Your task to perform on an android device: Open privacy settings Image 0: 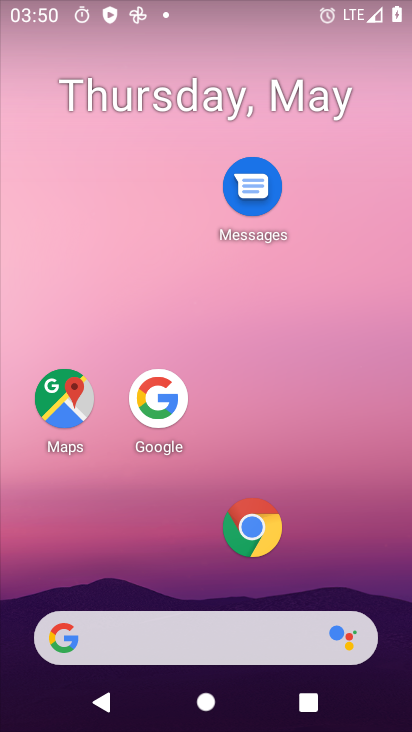
Step 0: drag from (207, 579) to (182, 167)
Your task to perform on an android device: Open privacy settings Image 1: 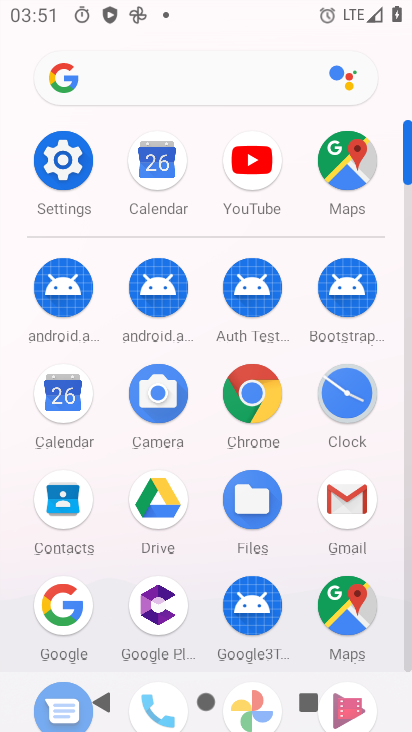
Step 1: click (51, 161)
Your task to perform on an android device: Open privacy settings Image 2: 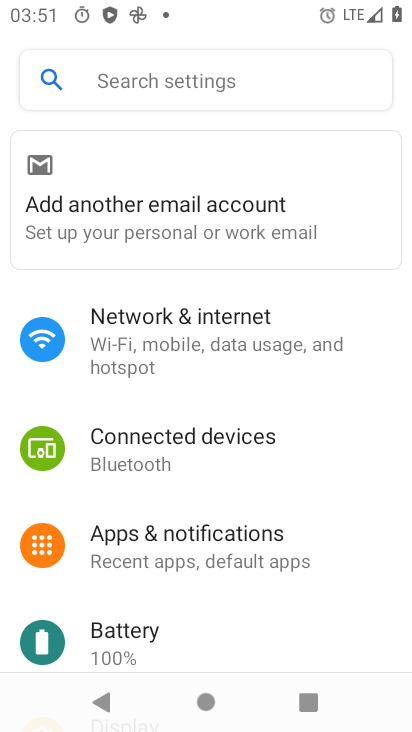
Step 2: drag from (176, 634) to (241, 153)
Your task to perform on an android device: Open privacy settings Image 3: 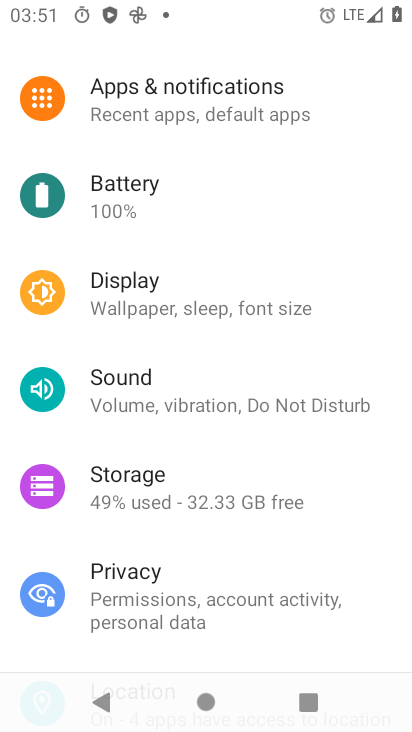
Step 3: click (184, 574)
Your task to perform on an android device: Open privacy settings Image 4: 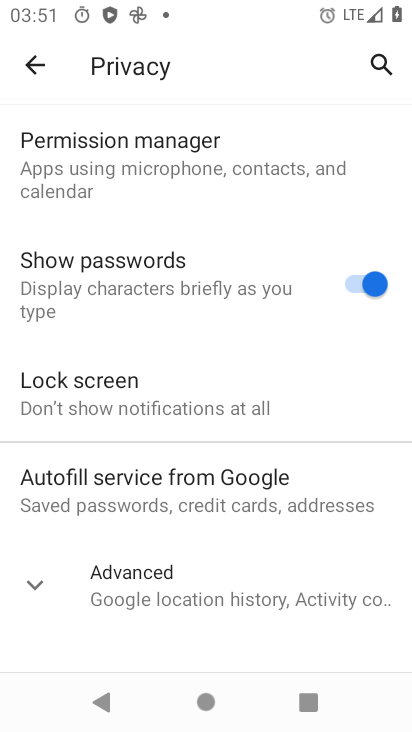
Step 4: task complete